Your task to perform on an android device: delete browsing data in the chrome app Image 0: 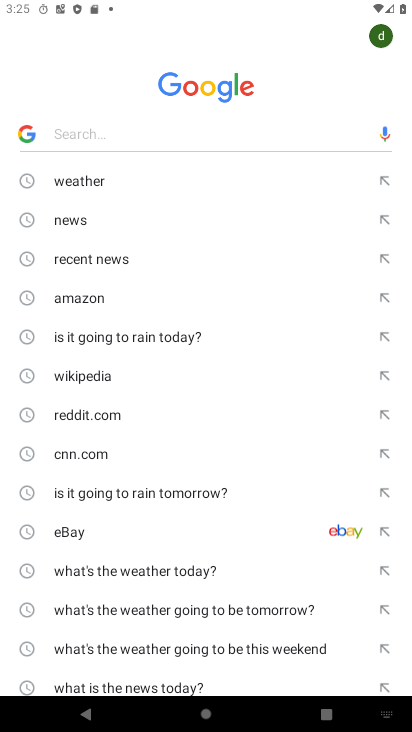
Step 0: press home button
Your task to perform on an android device: delete browsing data in the chrome app Image 1: 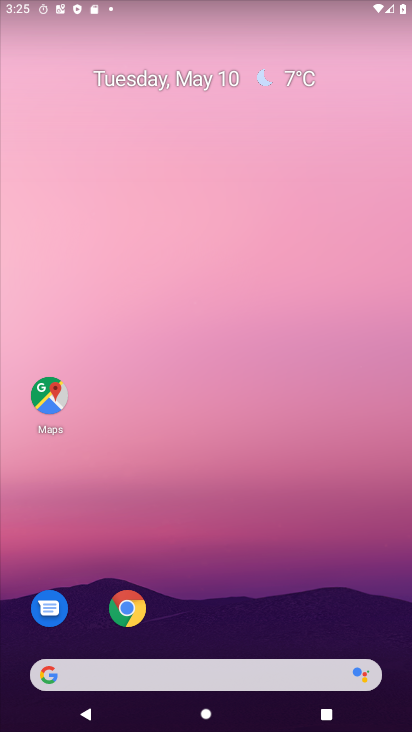
Step 1: click (129, 605)
Your task to perform on an android device: delete browsing data in the chrome app Image 2: 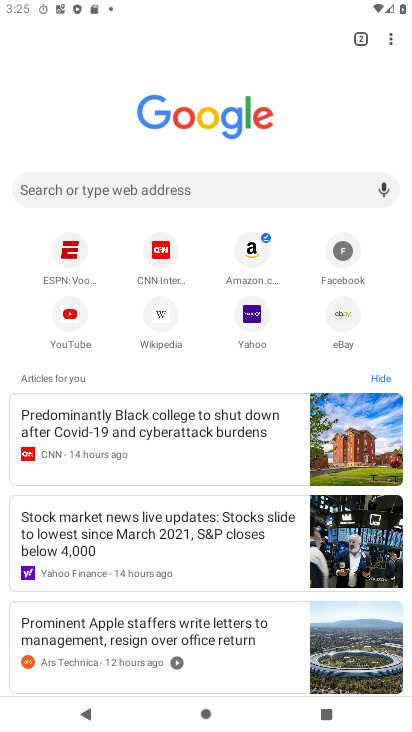
Step 2: drag from (393, 42) to (276, 324)
Your task to perform on an android device: delete browsing data in the chrome app Image 3: 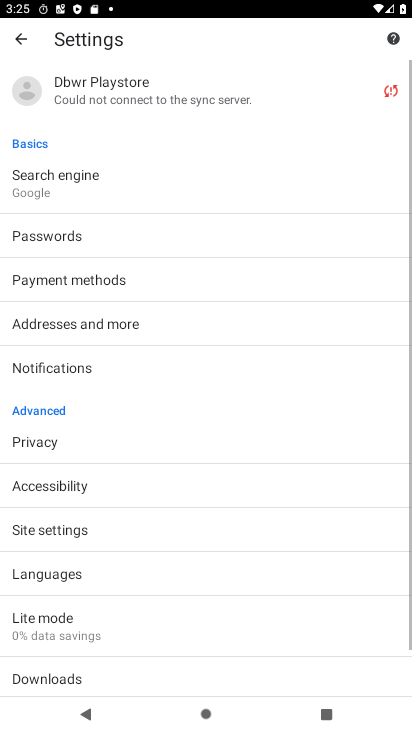
Step 3: click (9, 451)
Your task to perform on an android device: delete browsing data in the chrome app Image 4: 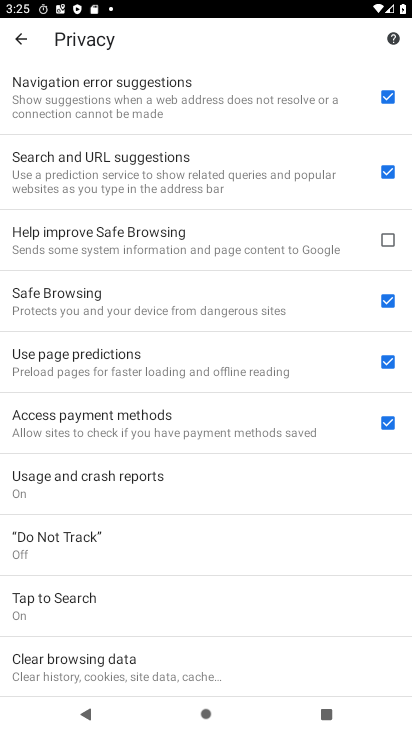
Step 4: click (124, 660)
Your task to perform on an android device: delete browsing data in the chrome app Image 5: 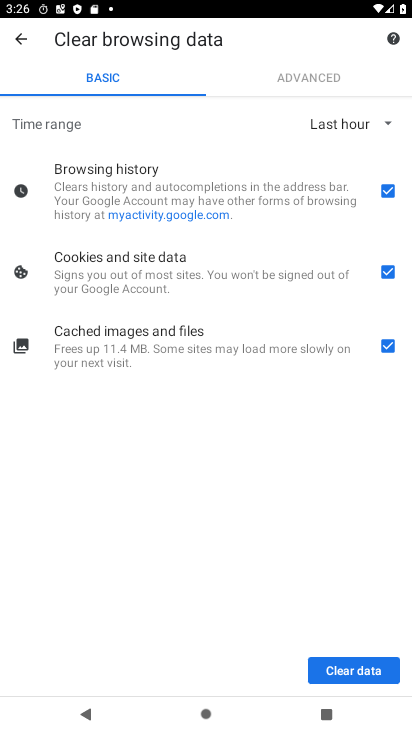
Step 5: click (388, 271)
Your task to perform on an android device: delete browsing data in the chrome app Image 6: 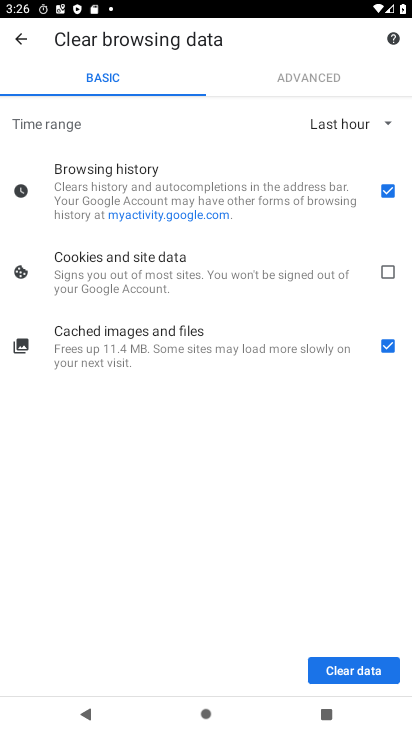
Step 6: click (385, 347)
Your task to perform on an android device: delete browsing data in the chrome app Image 7: 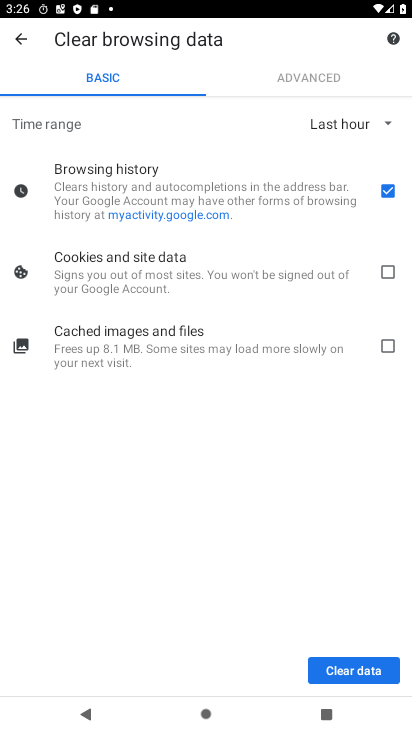
Step 7: click (366, 665)
Your task to perform on an android device: delete browsing data in the chrome app Image 8: 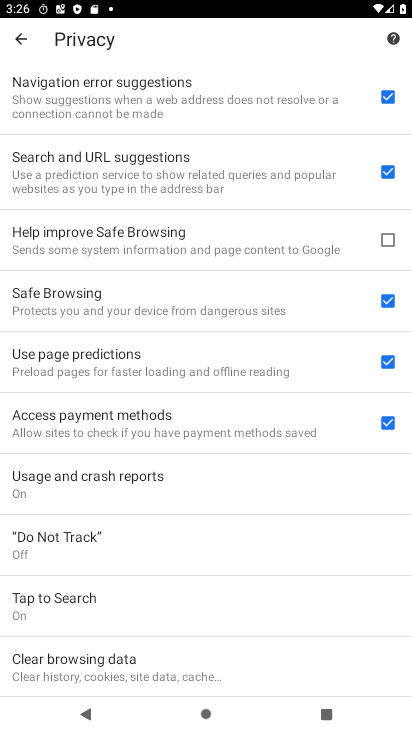
Step 8: task complete